Your task to perform on an android device: Show me recent news Image 0: 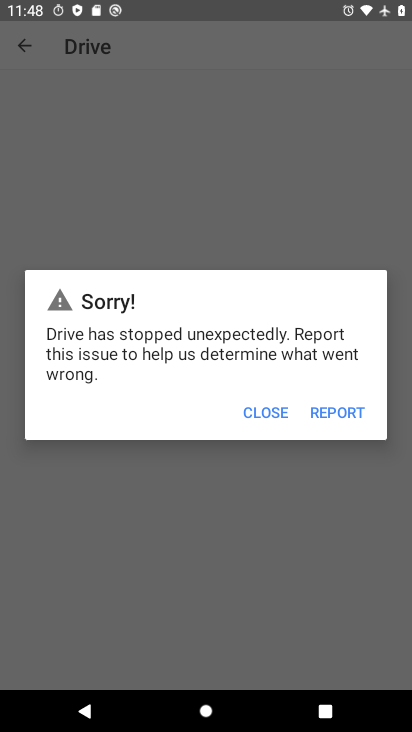
Step 0: press home button
Your task to perform on an android device: Show me recent news Image 1: 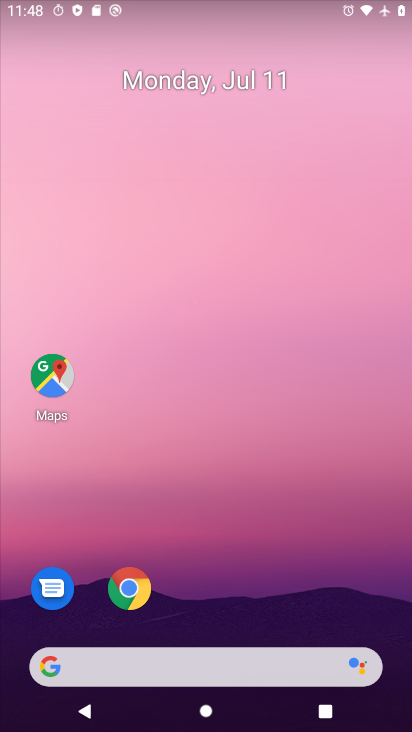
Step 1: click (126, 652)
Your task to perform on an android device: Show me recent news Image 2: 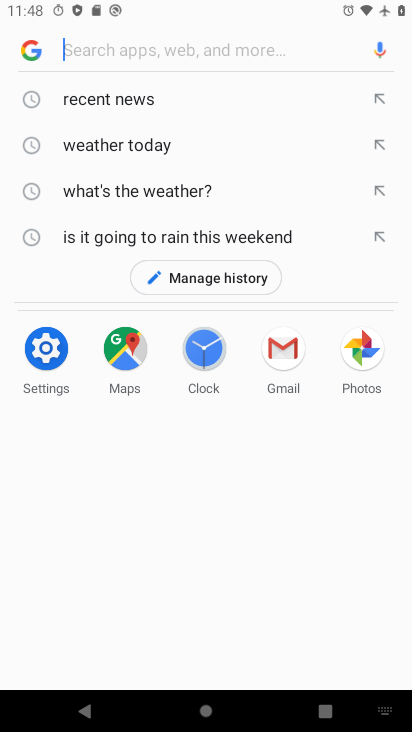
Step 2: click (150, 103)
Your task to perform on an android device: Show me recent news Image 3: 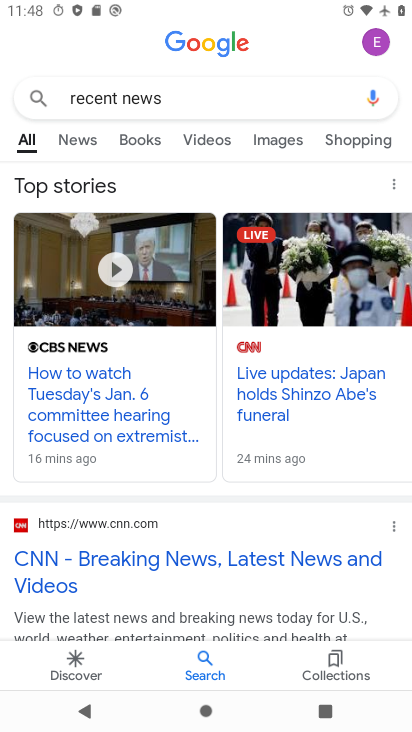
Step 3: click (87, 145)
Your task to perform on an android device: Show me recent news Image 4: 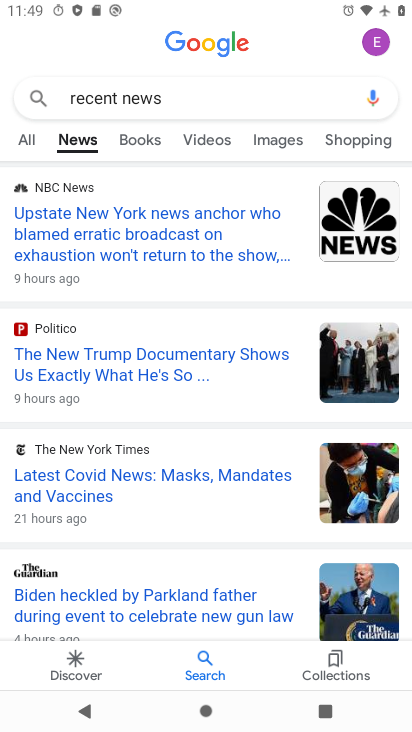
Step 4: task complete